Your task to perform on an android device: uninstall "Viber Messenger" Image 0: 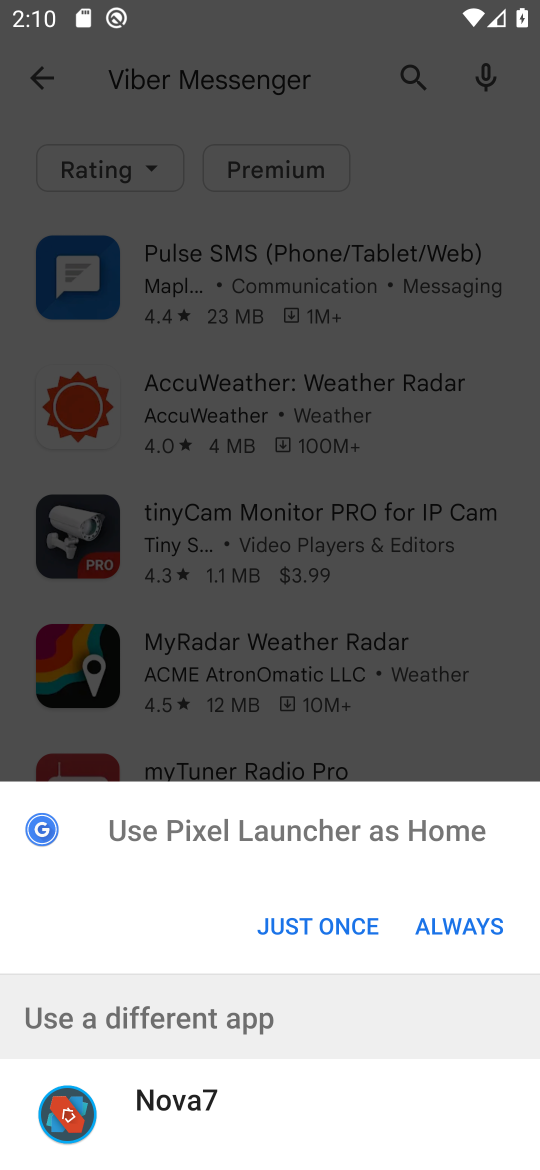
Step 0: click (280, 929)
Your task to perform on an android device: uninstall "Viber Messenger" Image 1: 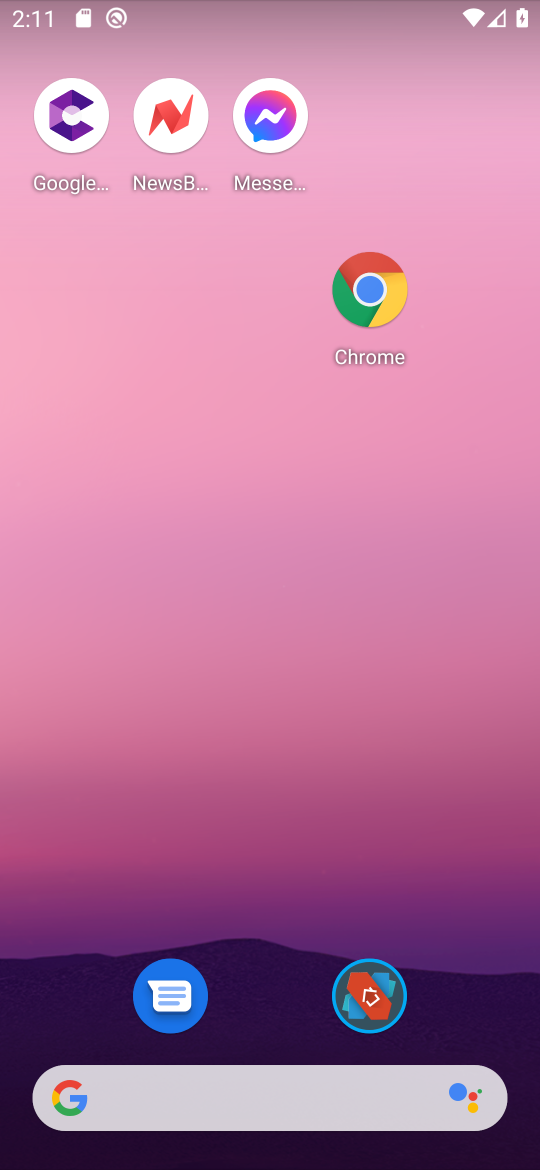
Step 1: drag from (213, 1083) to (276, 185)
Your task to perform on an android device: uninstall "Viber Messenger" Image 2: 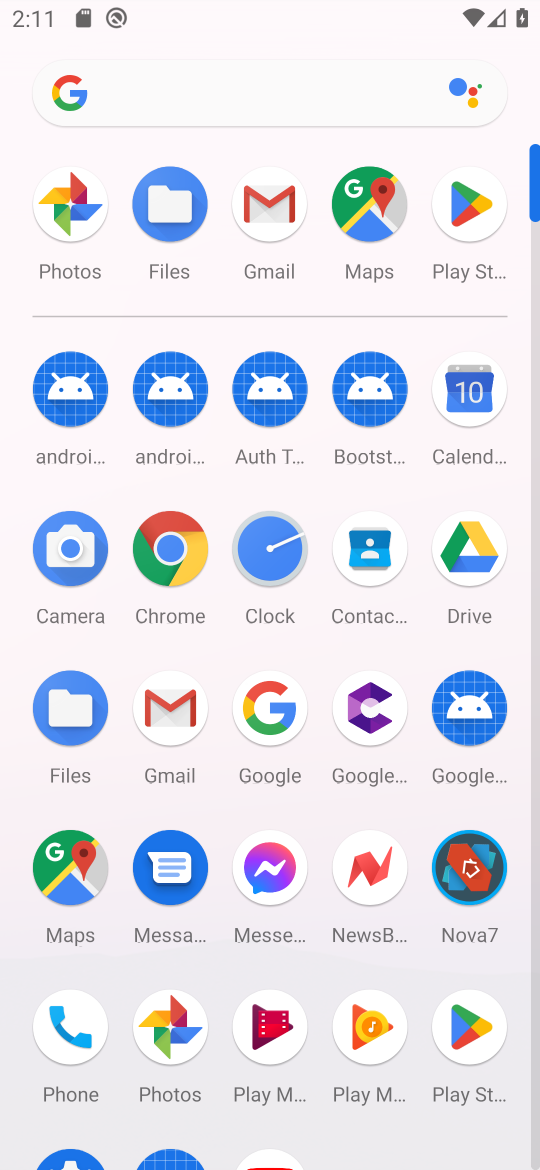
Step 2: click (471, 213)
Your task to perform on an android device: uninstall "Viber Messenger" Image 3: 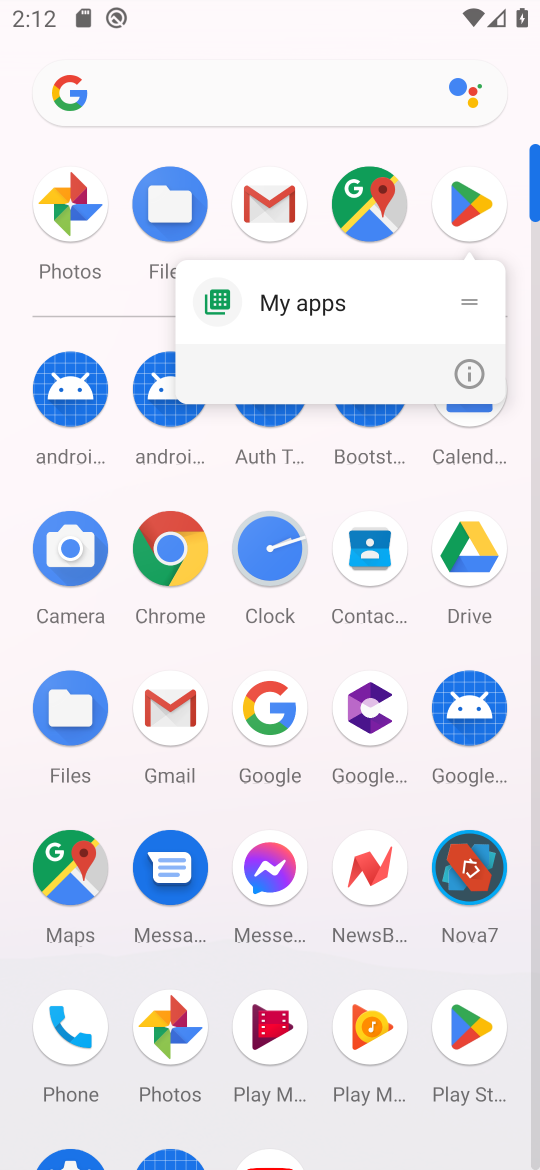
Step 3: click (464, 217)
Your task to perform on an android device: uninstall "Viber Messenger" Image 4: 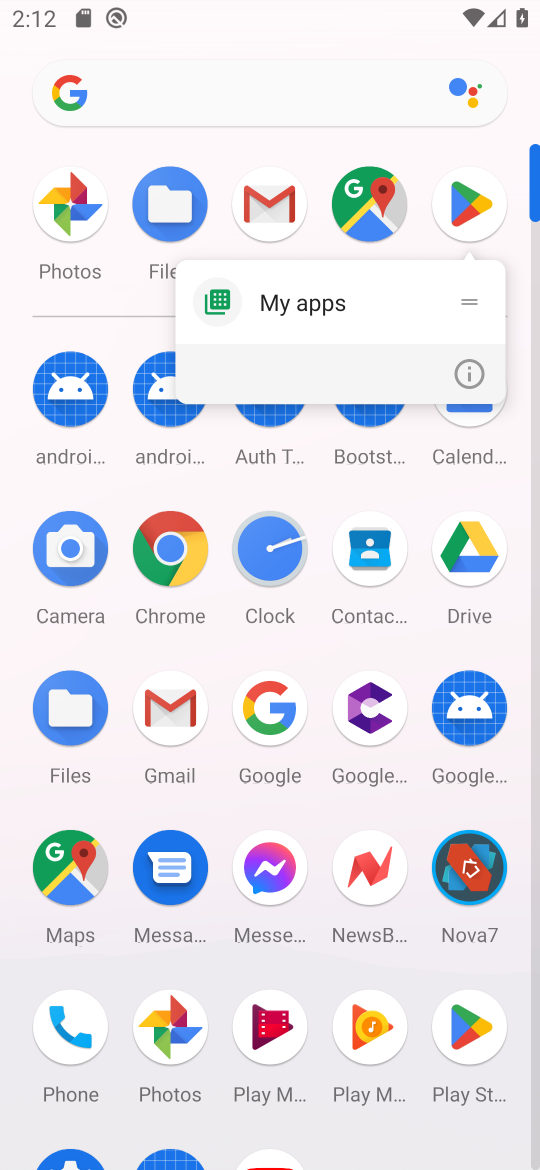
Step 4: click (464, 217)
Your task to perform on an android device: uninstall "Viber Messenger" Image 5: 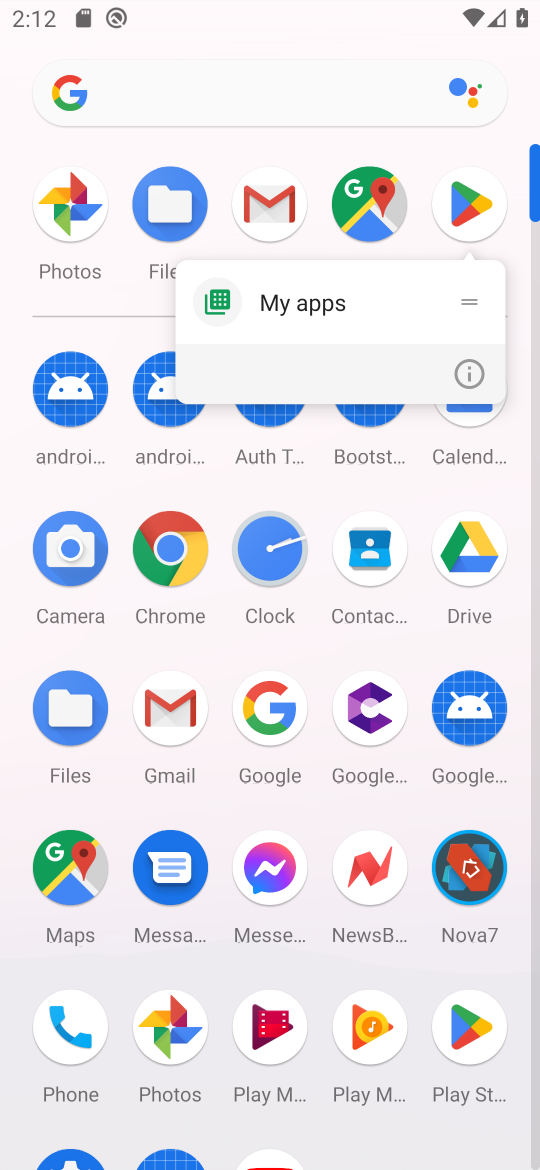
Step 5: click (464, 217)
Your task to perform on an android device: uninstall "Viber Messenger" Image 6: 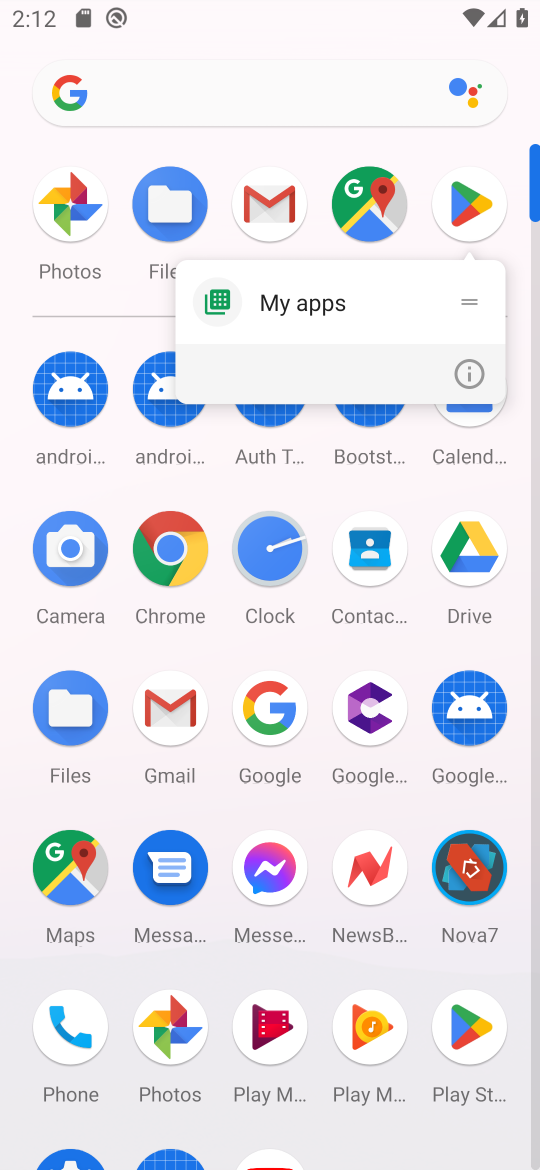
Step 6: click (464, 217)
Your task to perform on an android device: uninstall "Viber Messenger" Image 7: 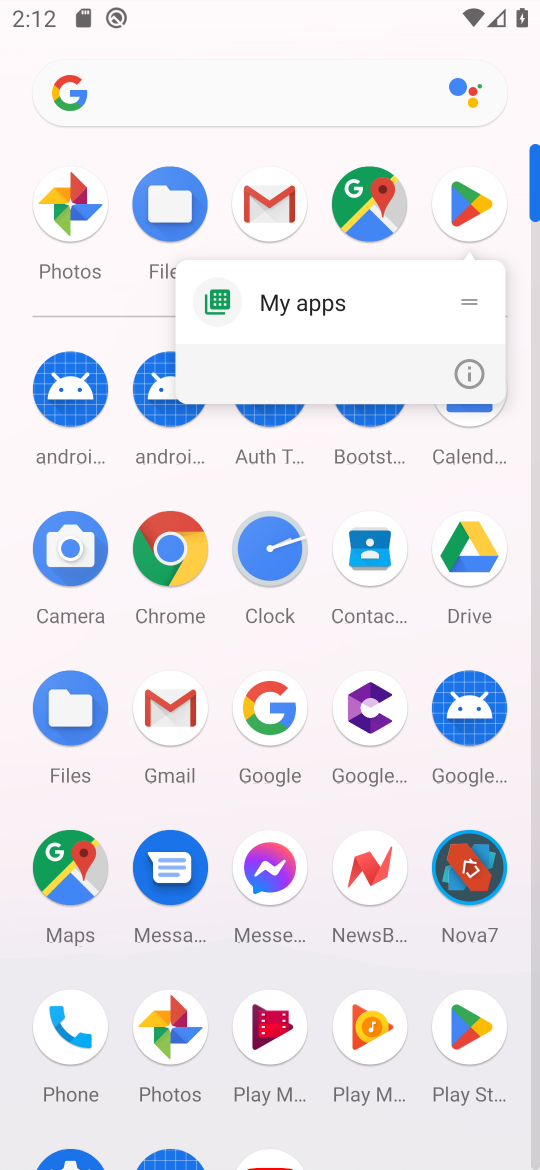
Step 7: click (464, 219)
Your task to perform on an android device: uninstall "Viber Messenger" Image 8: 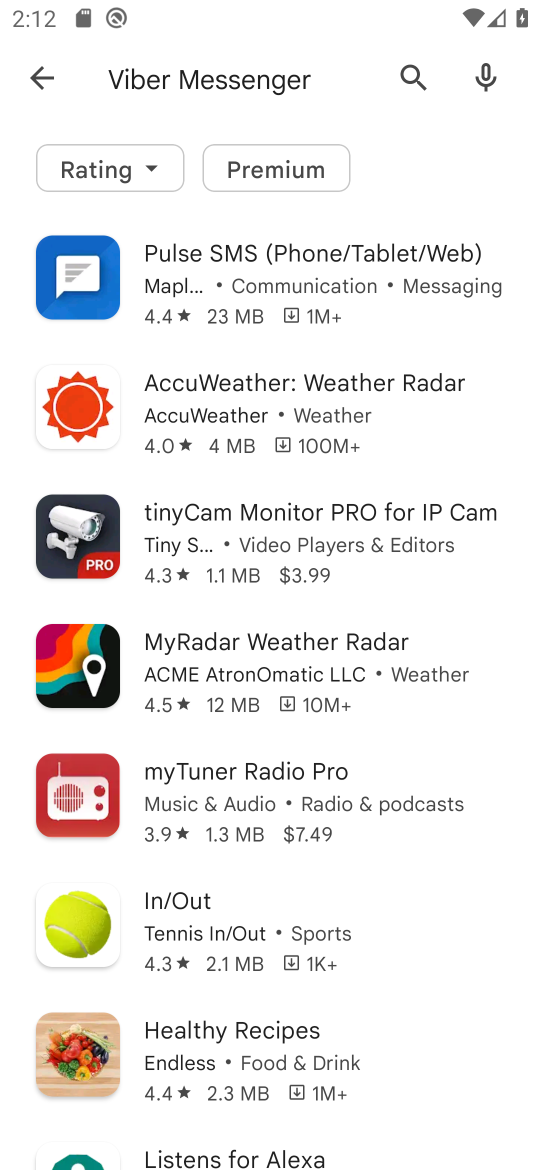
Step 8: click (460, 223)
Your task to perform on an android device: uninstall "Viber Messenger" Image 9: 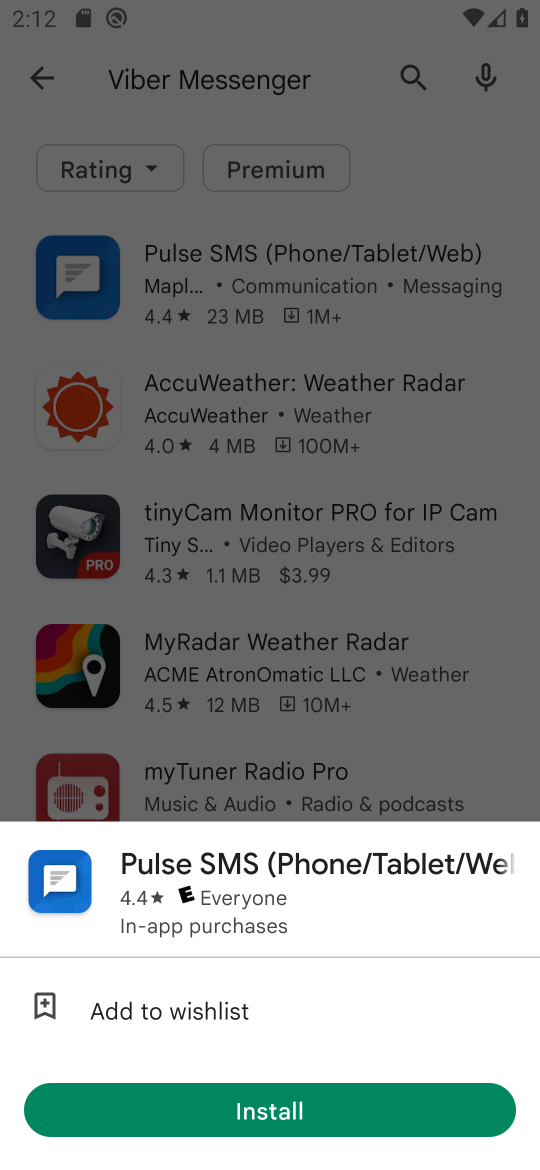
Step 9: task complete